Your task to perform on an android device: check out phone information Image 0: 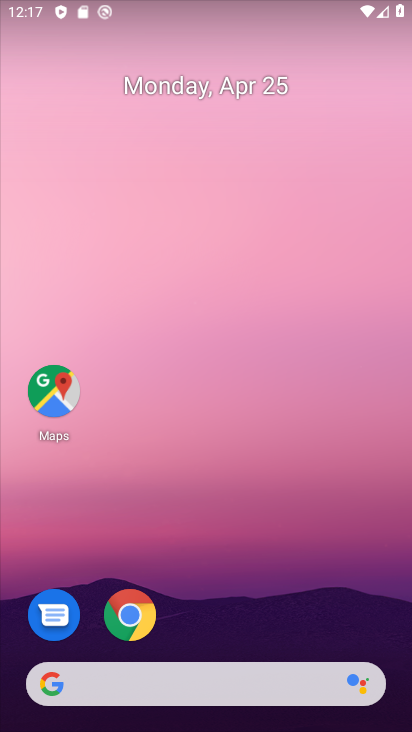
Step 0: drag from (221, 660) to (167, 1)
Your task to perform on an android device: check out phone information Image 1: 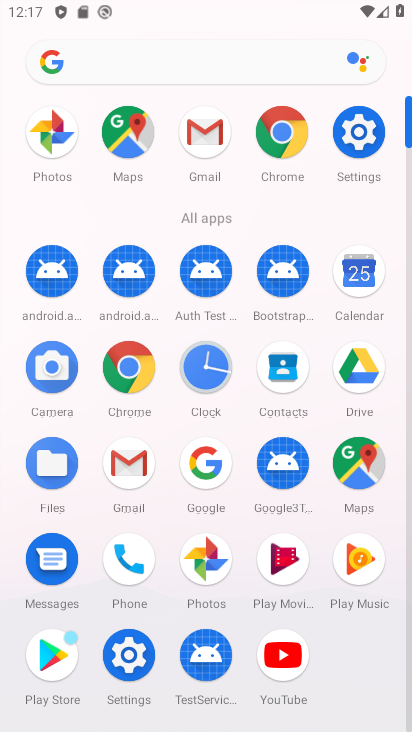
Step 1: click (363, 138)
Your task to perform on an android device: check out phone information Image 2: 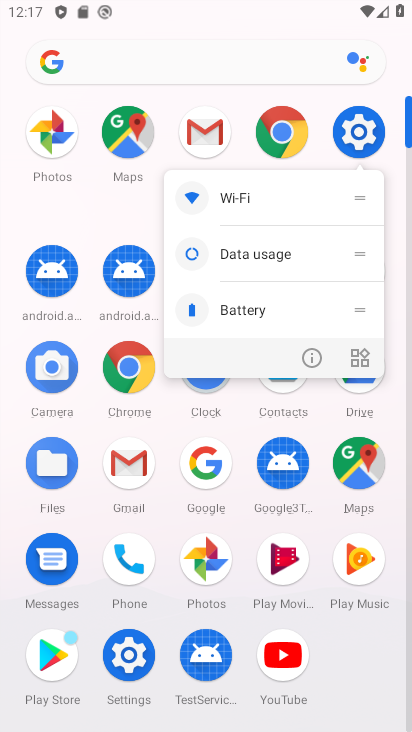
Step 2: click (351, 119)
Your task to perform on an android device: check out phone information Image 3: 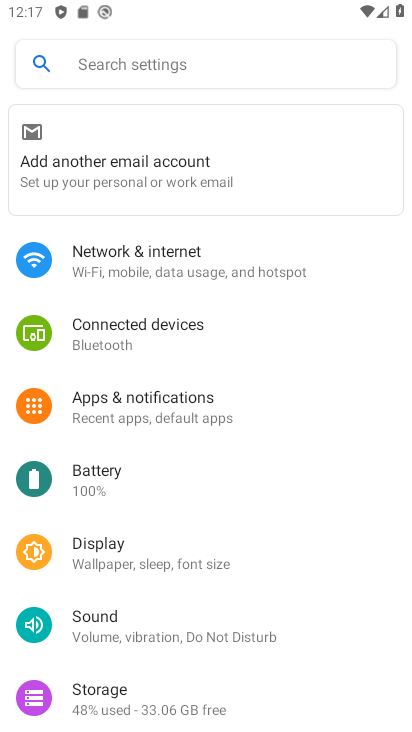
Step 3: drag from (290, 561) to (220, 44)
Your task to perform on an android device: check out phone information Image 4: 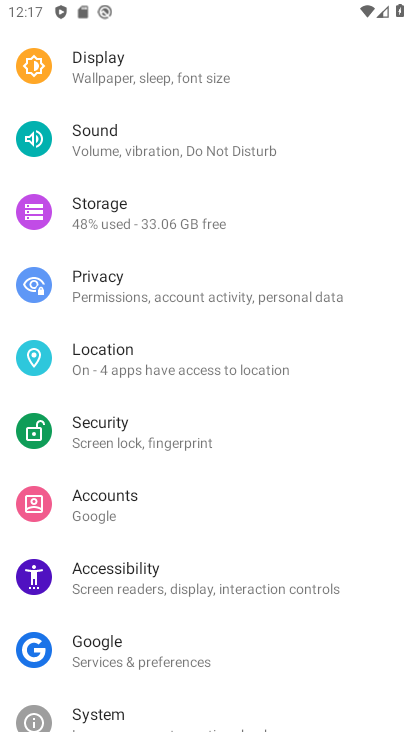
Step 4: drag from (229, 665) to (205, 201)
Your task to perform on an android device: check out phone information Image 5: 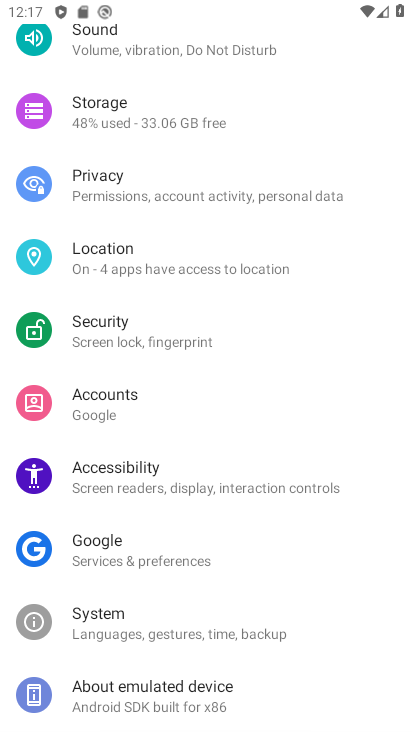
Step 5: click (152, 670)
Your task to perform on an android device: check out phone information Image 6: 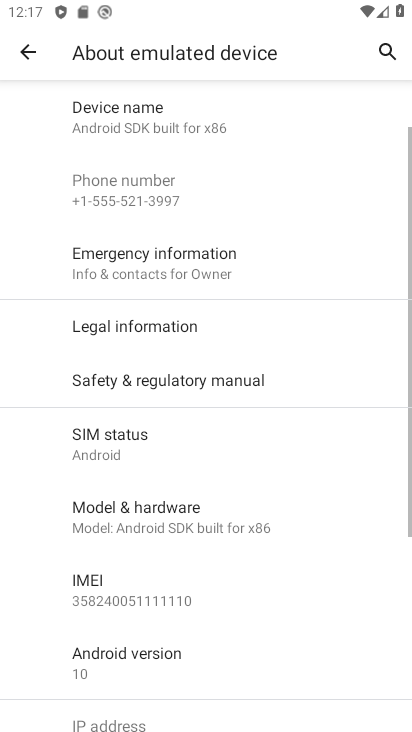
Step 6: task complete